Your task to perform on an android device: set default search engine in the chrome app Image 0: 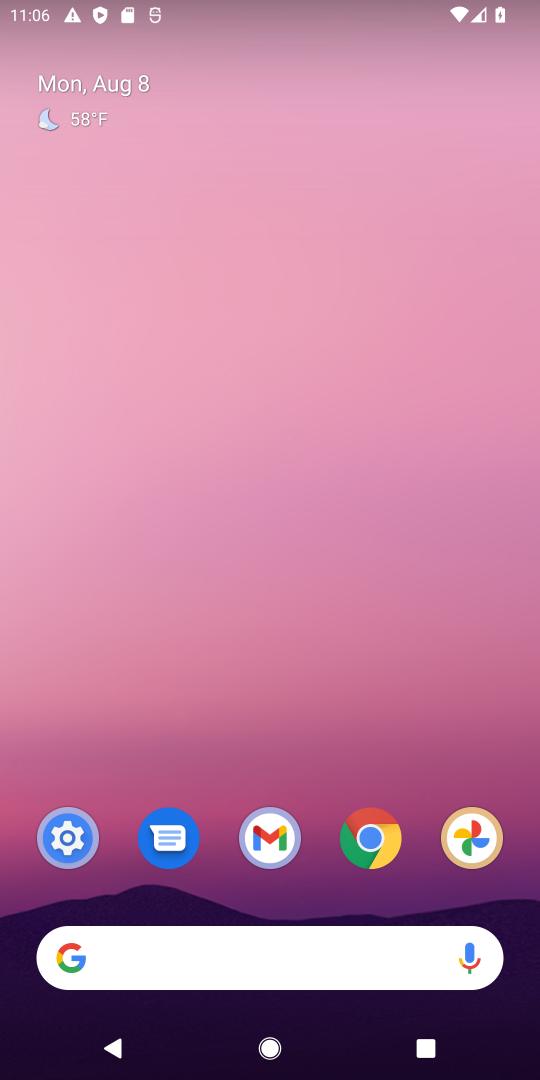
Step 0: press home button
Your task to perform on an android device: set default search engine in the chrome app Image 1: 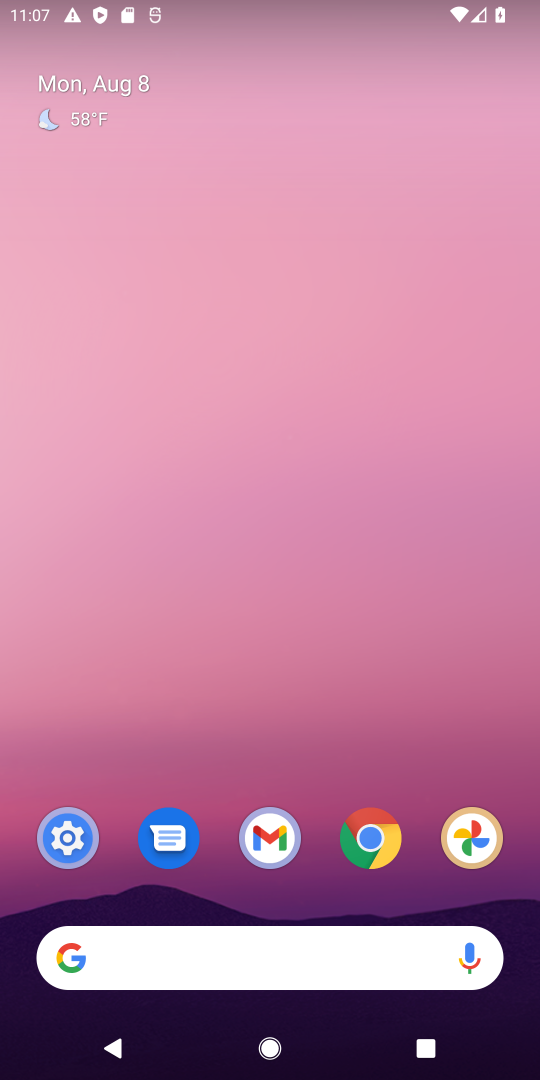
Step 1: click (370, 851)
Your task to perform on an android device: set default search engine in the chrome app Image 2: 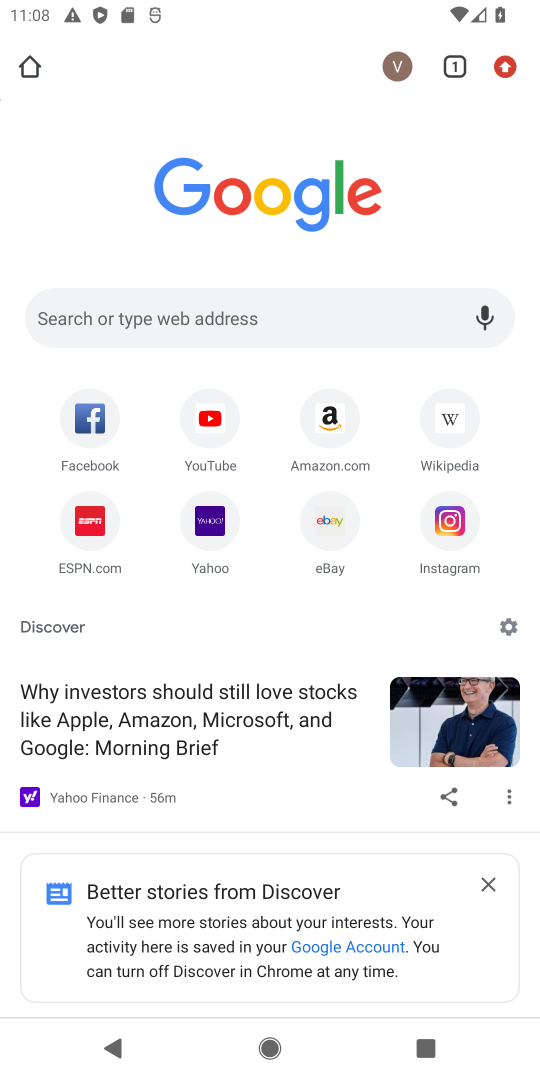
Step 2: drag from (513, 56) to (335, 667)
Your task to perform on an android device: set default search engine in the chrome app Image 3: 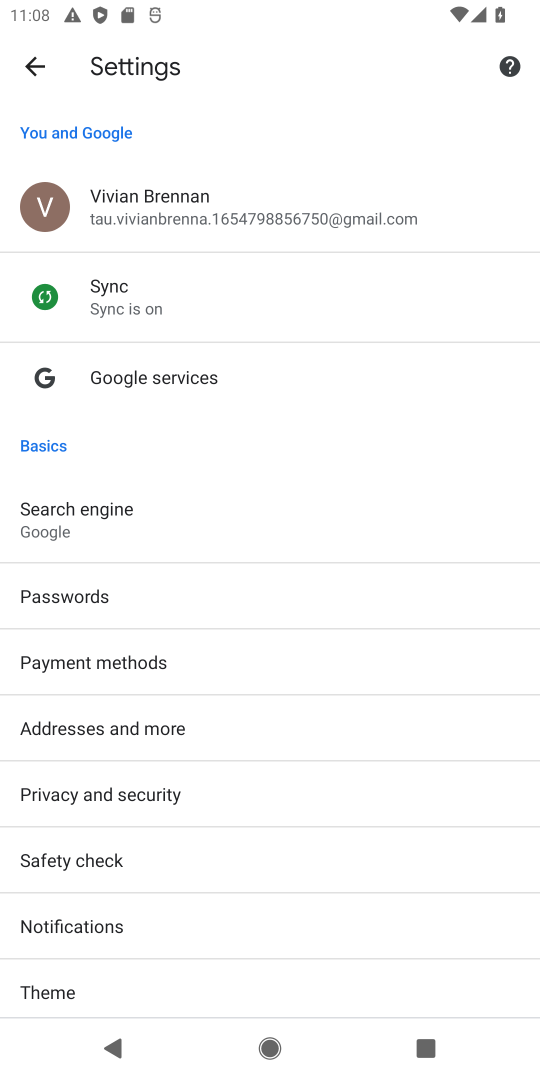
Step 3: click (23, 532)
Your task to perform on an android device: set default search engine in the chrome app Image 4: 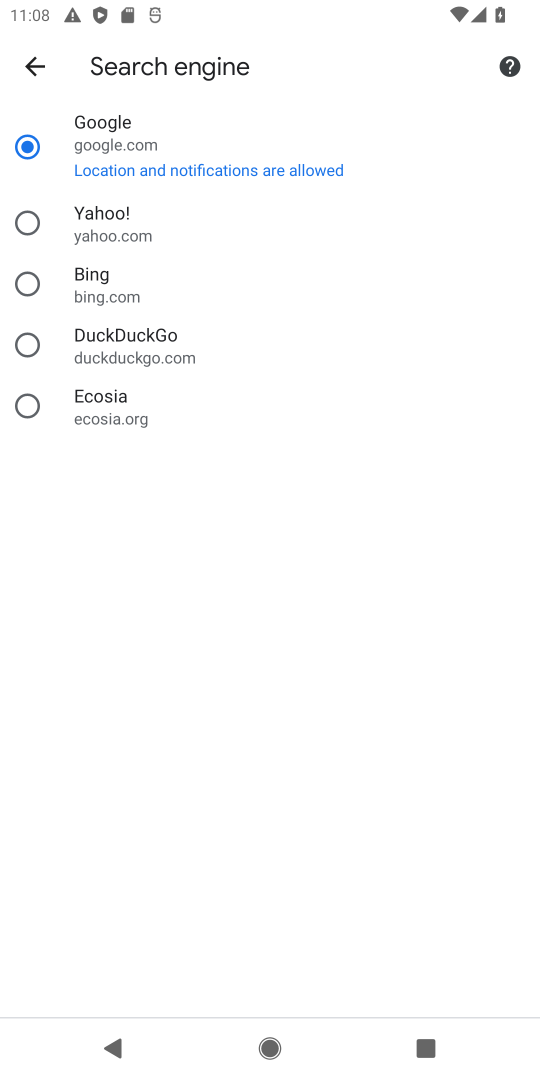
Step 4: click (27, 273)
Your task to perform on an android device: set default search engine in the chrome app Image 5: 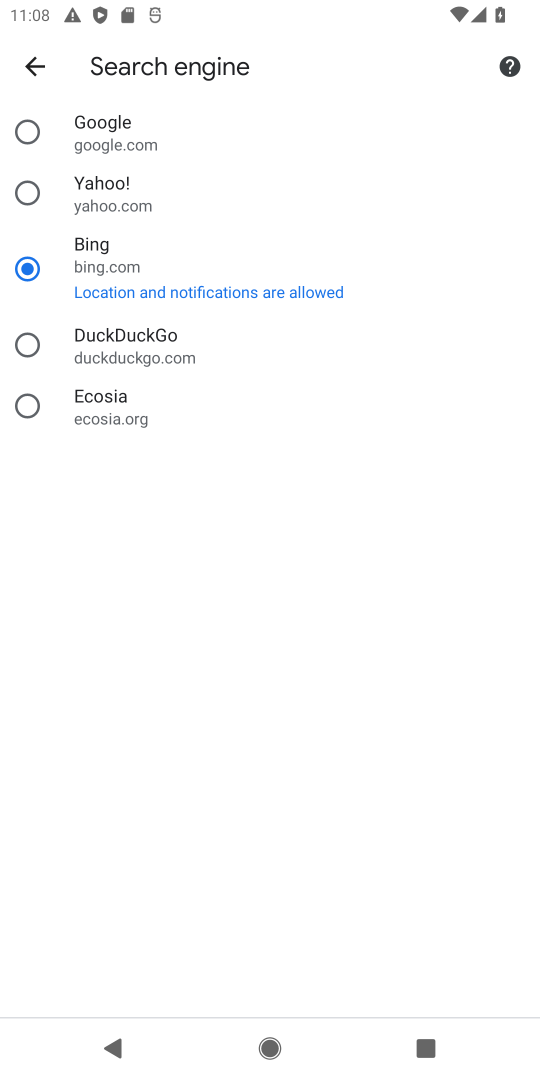
Step 5: task complete